Your task to perform on an android device: Go to notification settings Image 0: 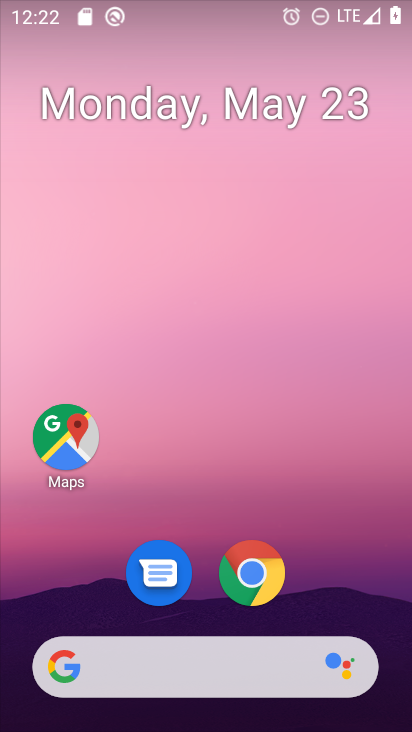
Step 0: drag from (336, 551) to (242, 48)
Your task to perform on an android device: Go to notification settings Image 1: 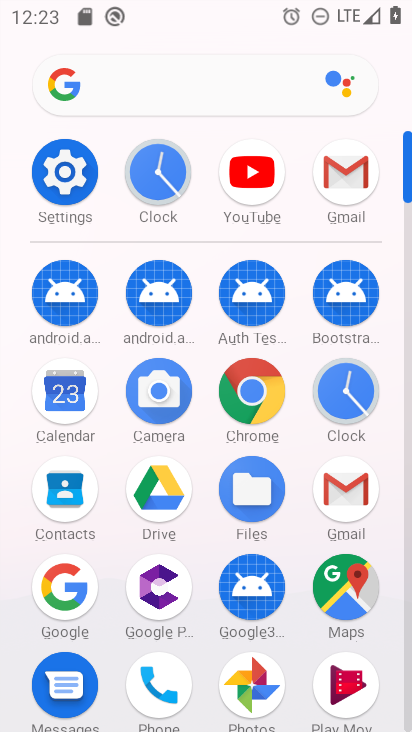
Step 1: drag from (131, 550) to (126, 238)
Your task to perform on an android device: Go to notification settings Image 2: 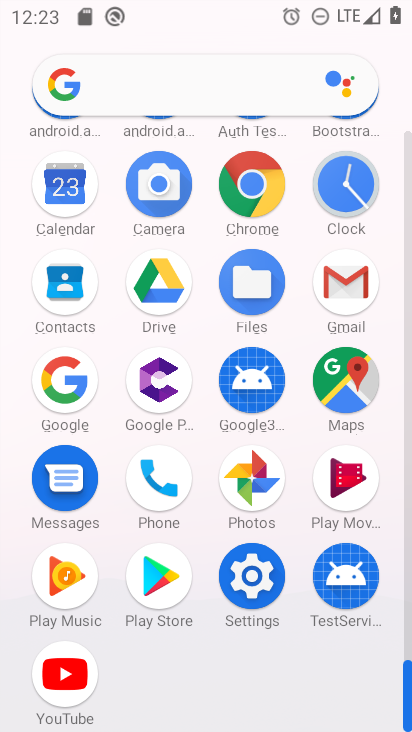
Step 2: click (248, 550)
Your task to perform on an android device: Go to notification settings Image 3: 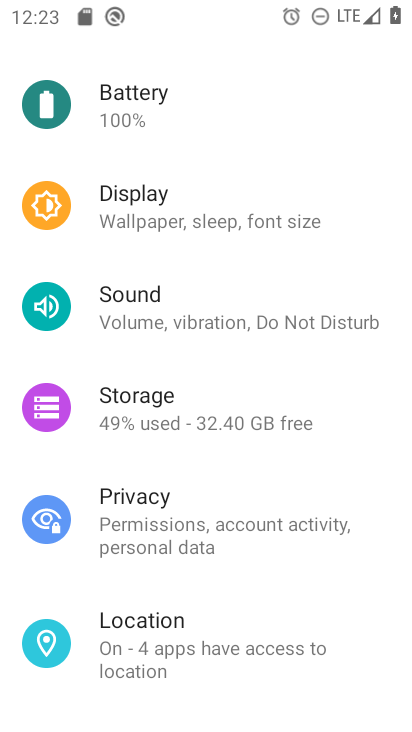
Step 3: drag from (215, 312) to (187, 660)
Your task to perform on an android device: Go to notification settings Image 4: 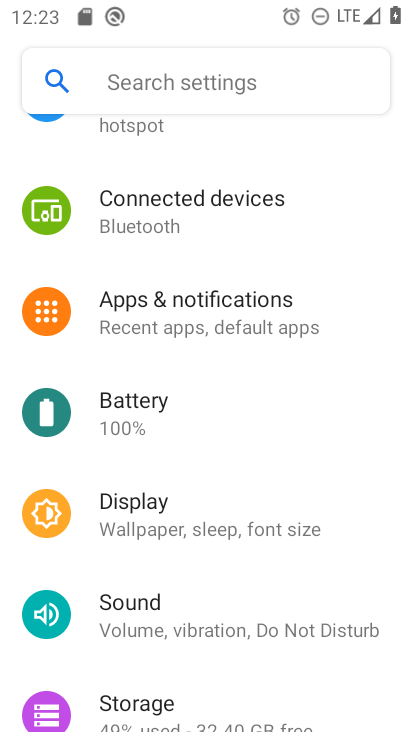
Step 4: click (218, 324)
Your task to perform on an android device: Go to notification settings Image 5: 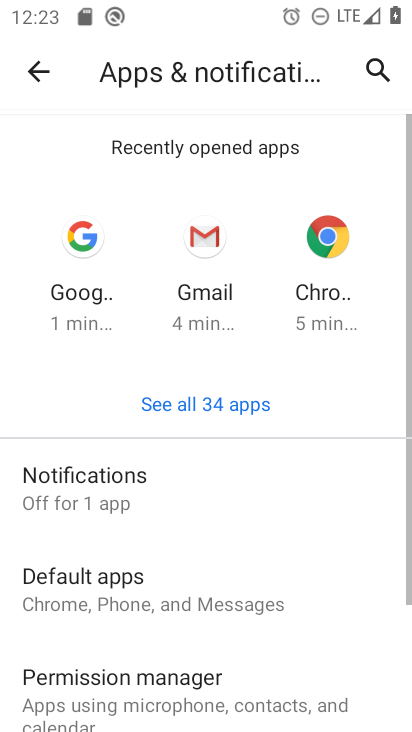
Step 5: click (171, 499)
Your task to perform on an android device: Go to notification settings Image 6: 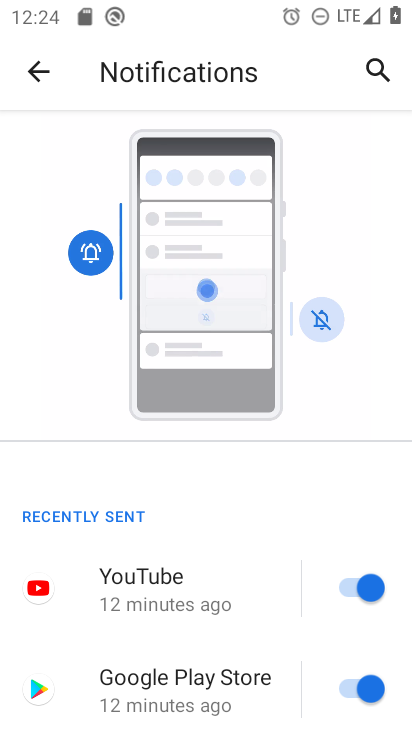
Step 6: task complete